Your task to perform on an android device: Is it going to rain this weekend? Image 0: 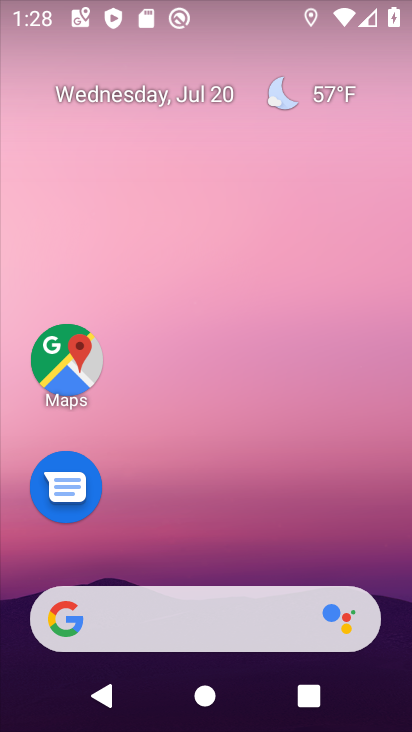
Step 0: click (203, 616)
Your task to perform on an android device: Is it going to rain this weekend? Image 1: 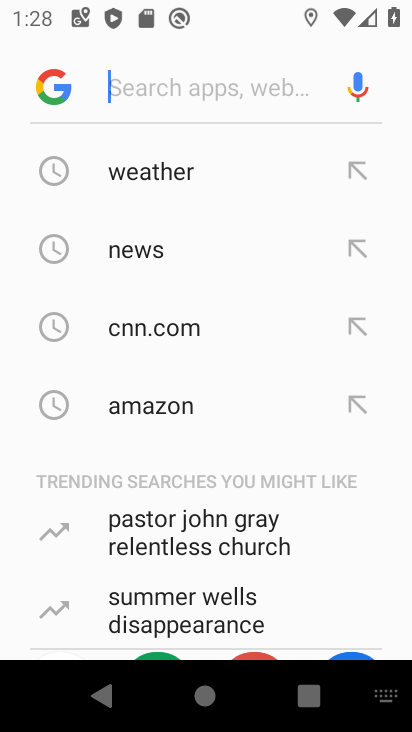
Step 1: click (149, 153)
Your task to perform on an android device: Is it going to rain this weekend? Image 2: 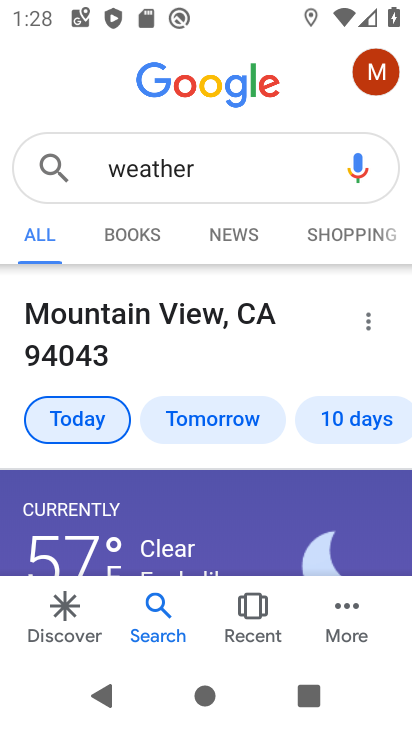
Step 2: click (365, 420)
Your task to perform on an android device: Is it going to rain this weekend? Image 3: 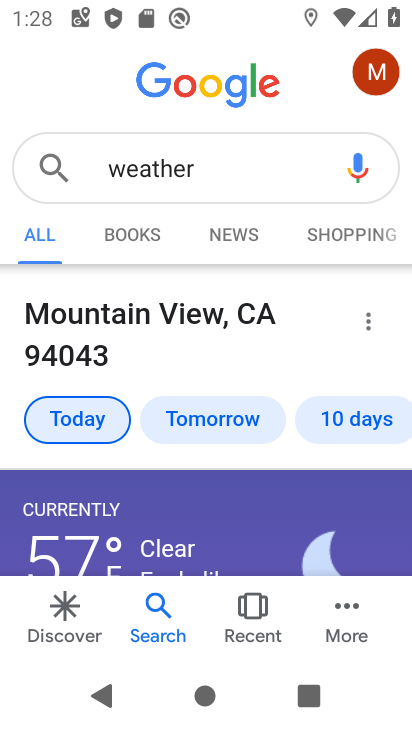
Step 3: click (339, 414)
Your task to perform on an android device: Is it going to rain this weekend? Image 4: 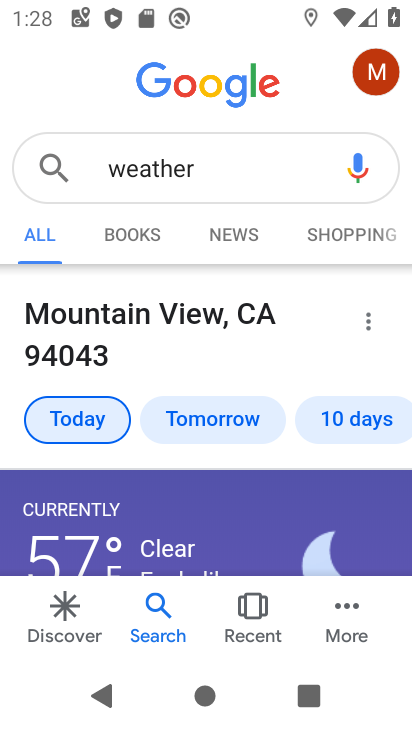
Step 4: task complete